Your task to perform on an android device: Go to eBay Image 0: 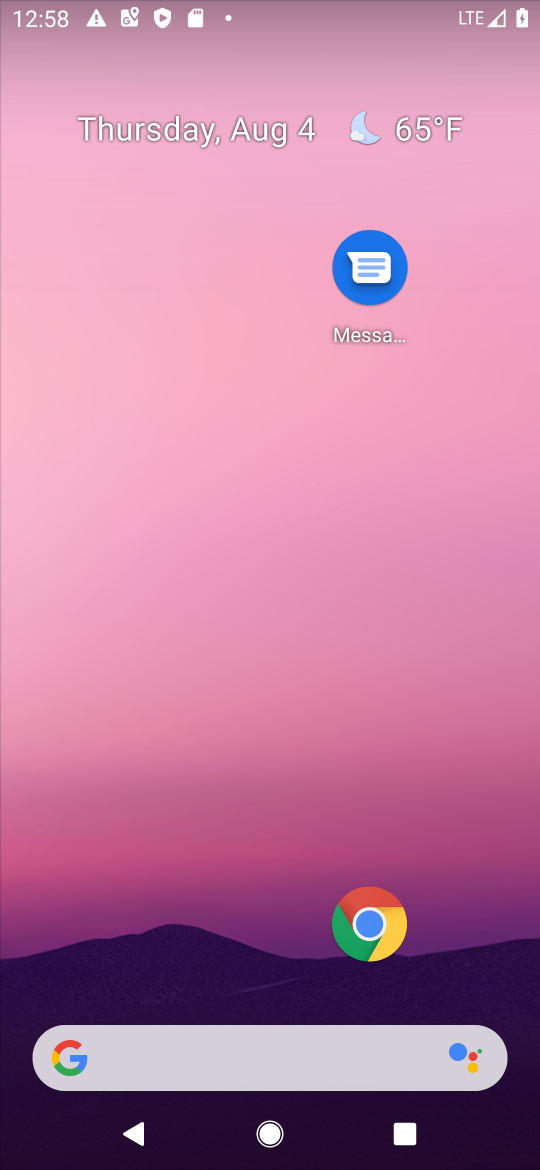
Step 0: drag from (48, 1158) to (236, 234)
Your task to perform on an android device: Go to eBay Image 1: 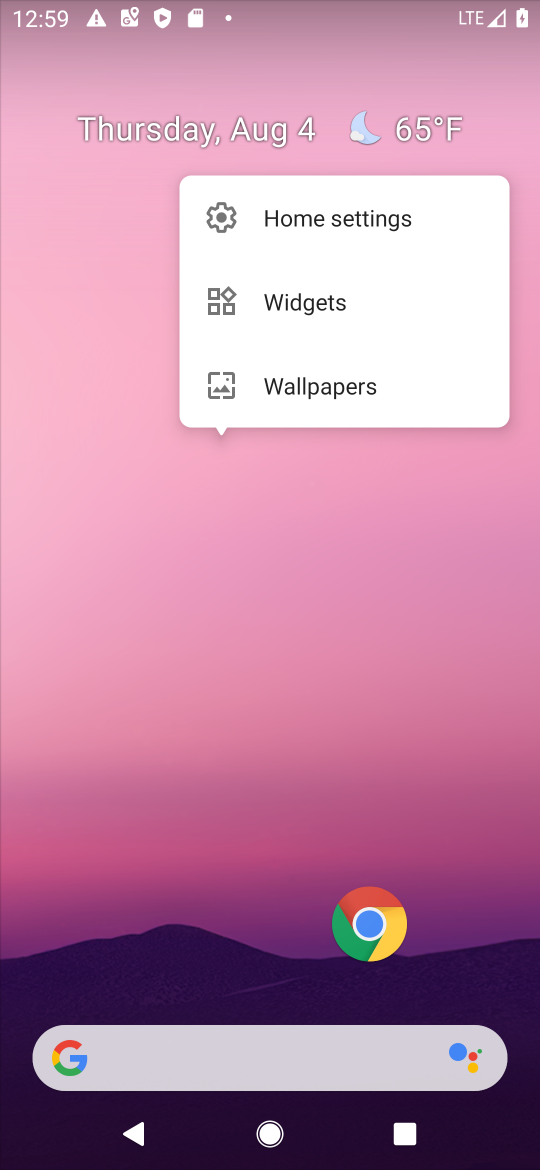
Step 1: click (239, 1068)
Your task to perform on an android device: Go to eBay Image 2: 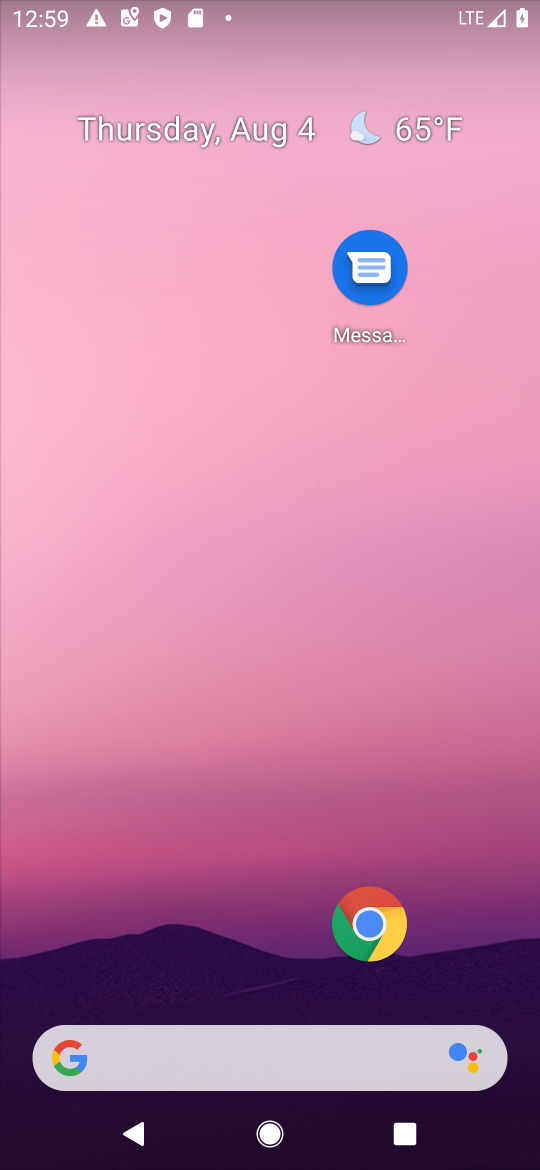
Step 2: click (119, 1066)
Your task to perform on an android device: Go to eBay Image 3: 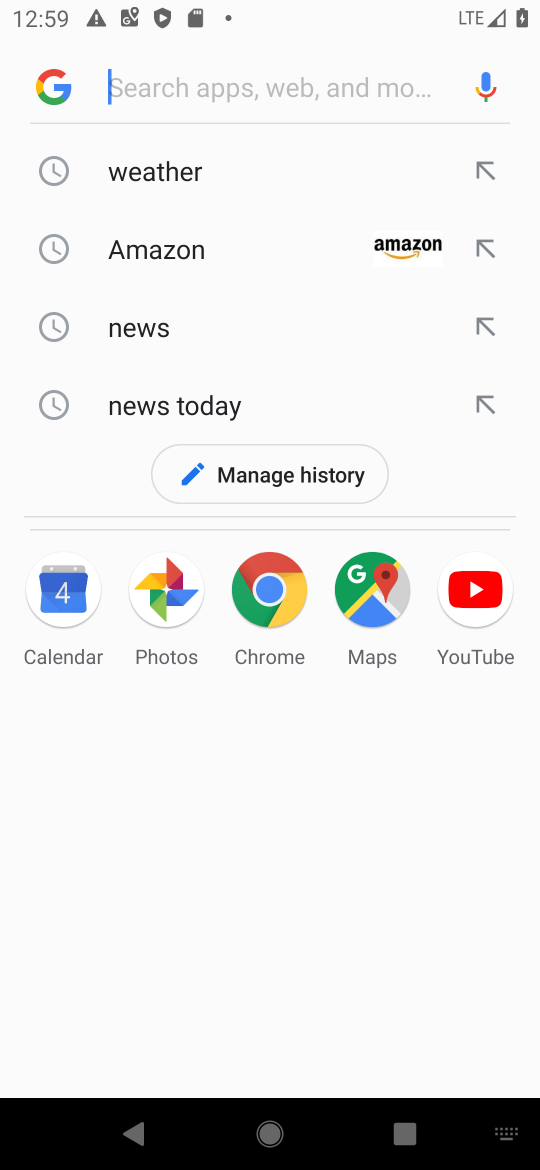
Step 3: type "eBay"
Your task to perform on an android device: Go to eBay Image 4: 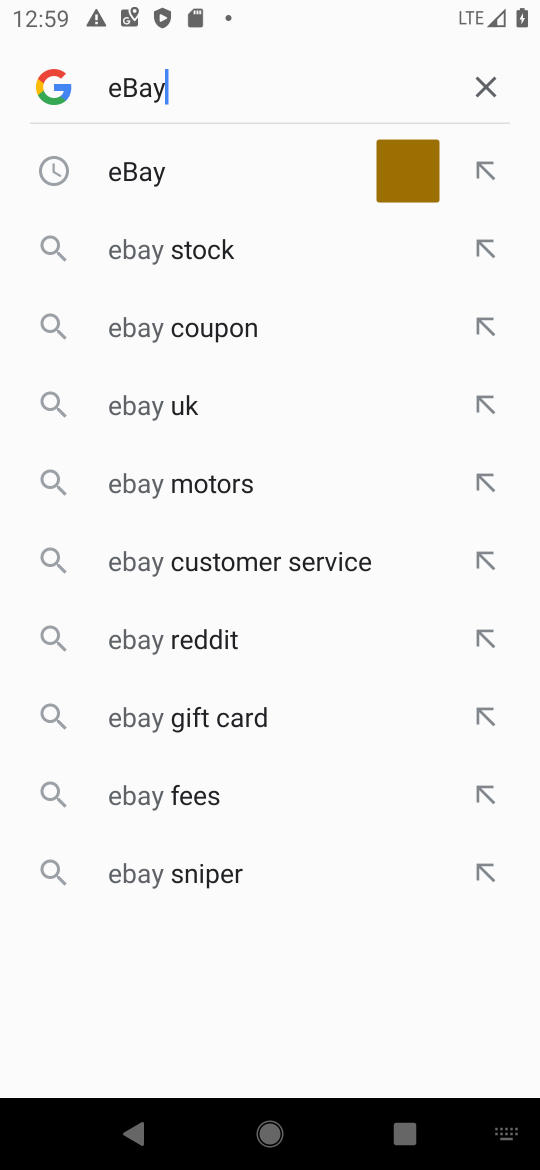
Step 4: type ""
Your task to perform on an android device: Go to eBay Image 5: 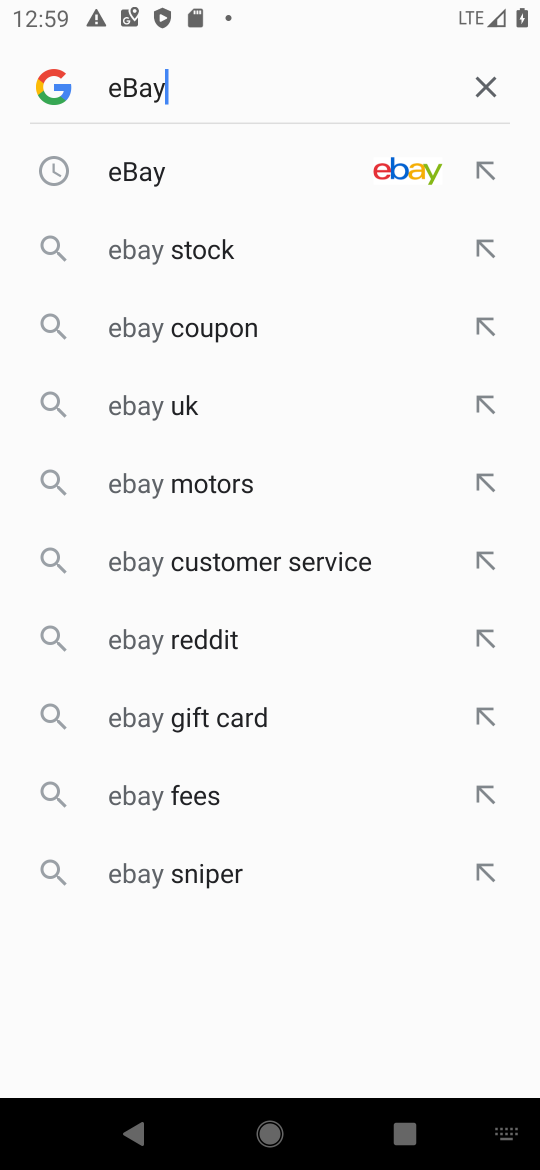
Step 5: click (108, 172)
Your task to perform on an android device: Go to eBay Image 6: 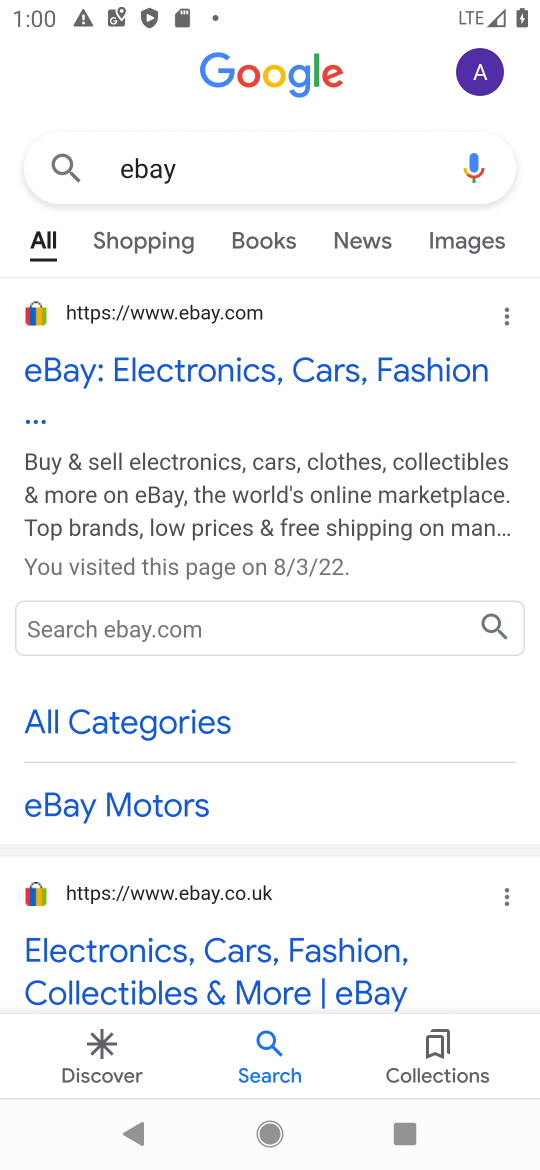
Step 6: task complete